Your task to perform on an android device: turn off javascript in the chrome app Image 0: 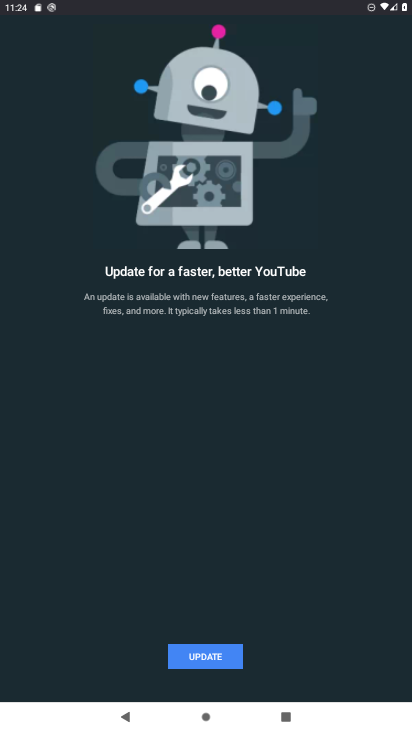
Step 0: press home button
Your task to perform on an android device: turn off javascript in the chrome app Image 1: 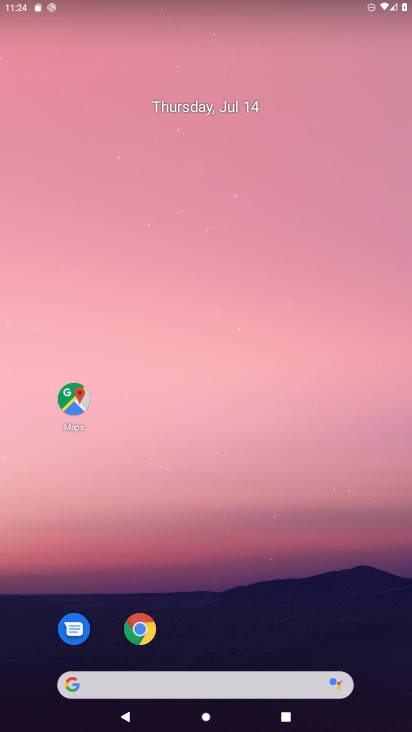
Step 1: click (134, 632)
Your task to perform on an android device: turn off javascript in the chrome app Image 2: 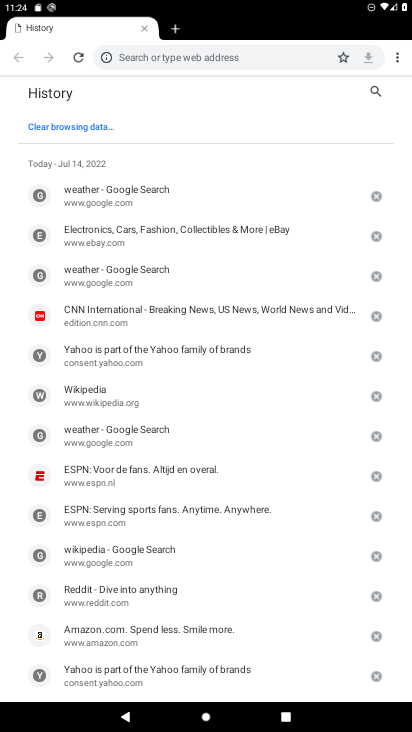
Step 2: click (134, 632)
Your task to perform on an android device: turn off javascript in the chrome app Image 3: 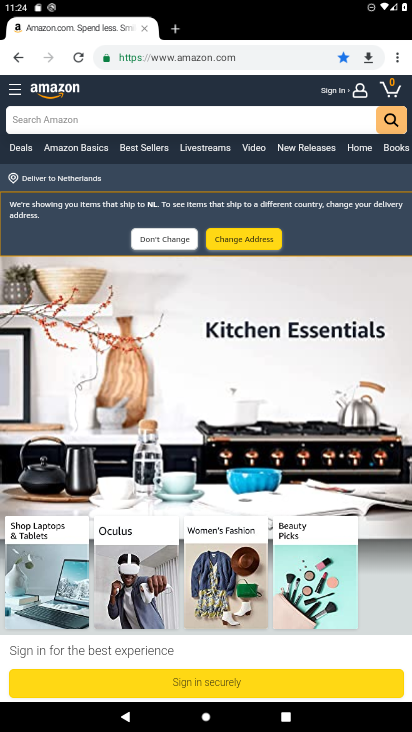
Step 3: click (398, 70)
Your task to perform on an android device: turn off javascript in the chrome app Image 4: 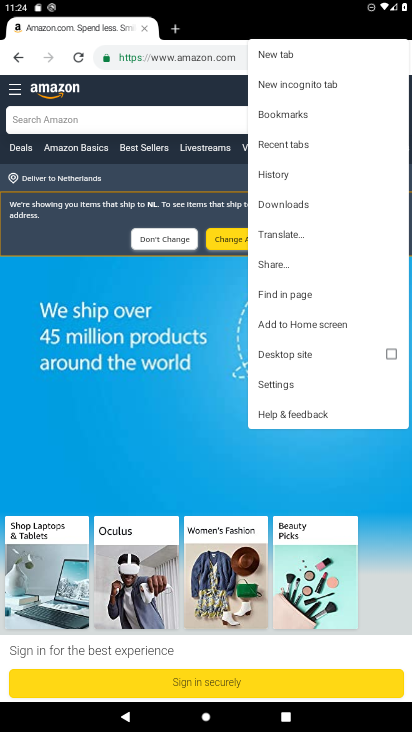
Step 4: click (297, 385)
Your task to perform on an android device: turn off javascript in the chrome app Image 5: 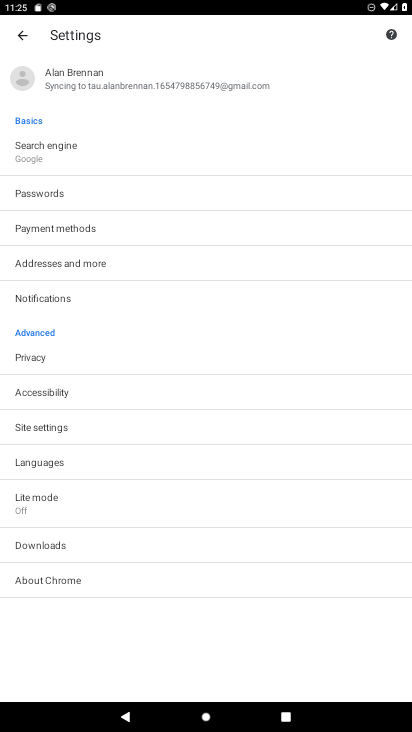
Step 5: click (90, 423)
Your task to perform on an android device: turn off javascript in the chrome app Image 6: 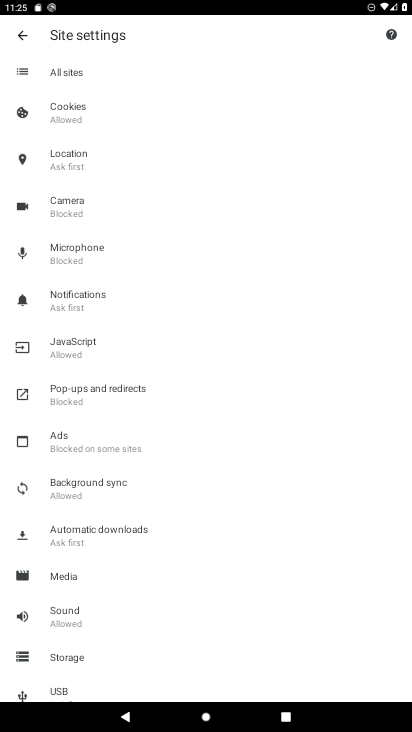
Step 6: click (123, 336)
Your task to perform on an android device: turn off javascript in the chrome app Image 7: 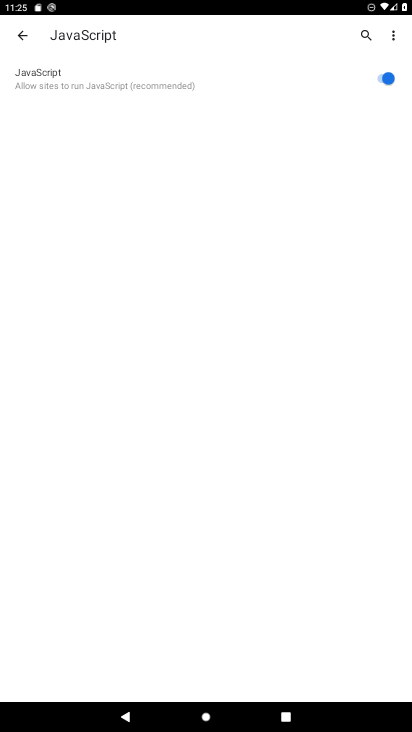
Step 7: click (383, 80)
Your task to perform on an android device: turn off javascript in the chrome app Image 8: 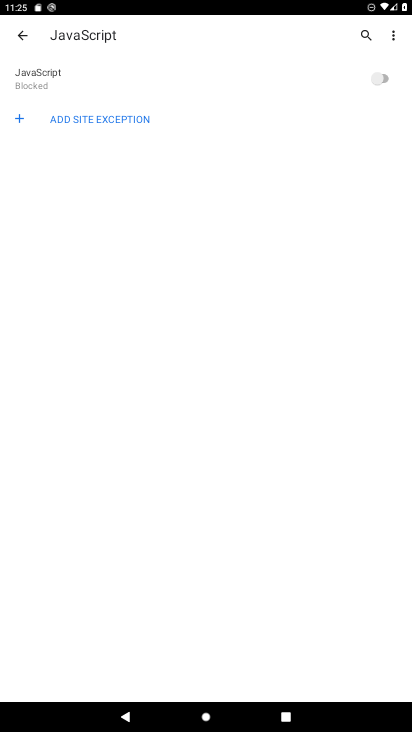
Step 8: task complete